Your task to perform on an android device: Open calendar and show me the third week of next month Image 0: 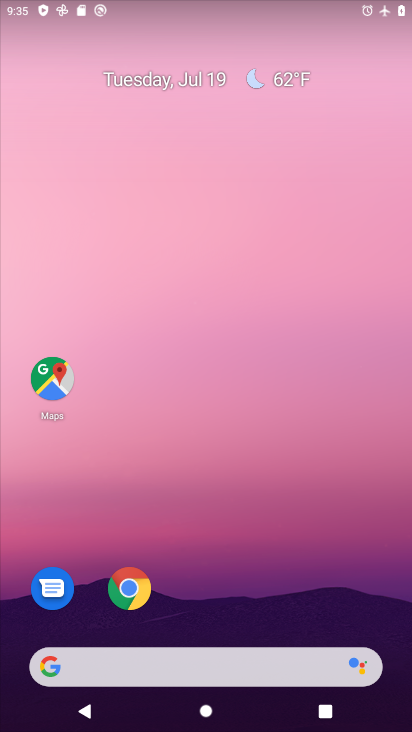
Step 0: drag from (330, 609) to (312, 11)
Your task to perform on an android device: Open calendar and show me the third week of next month Image 1: 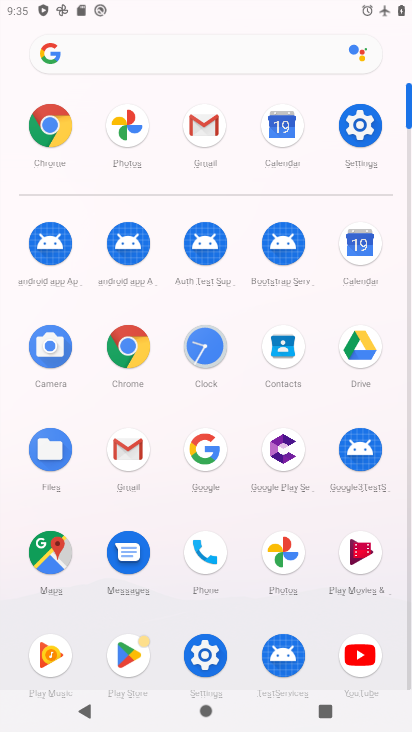
Step 1: click (347, 257)
Your task to perform on an android device: Open calendar and show me the third week of next month Image 2: 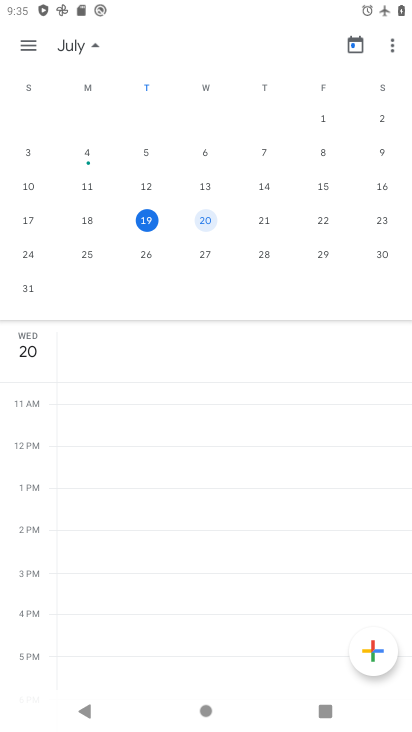
Step 2: drag from (400, 244) to (11, 191)
Your task to perform on an android device: Open calendar and show me the third week of next month Image 3: 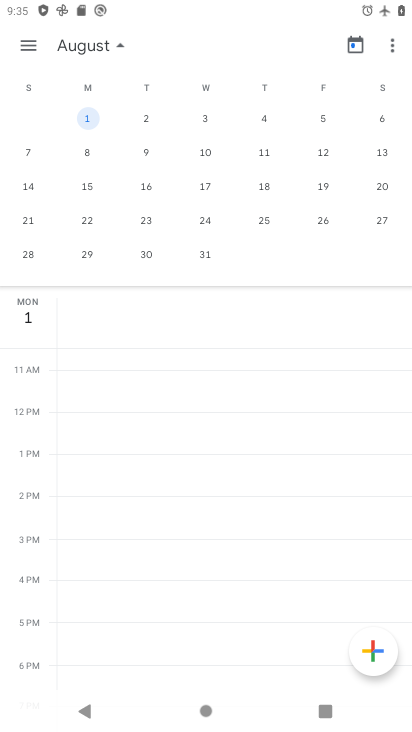
Step 3: click (33, 226)
Your task to perform on an android device: Open calendar and show me the third week of next month Image 4: 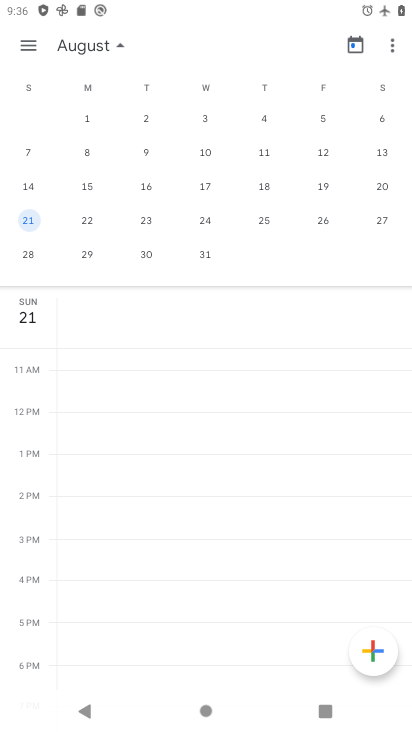
Step 4: task complete